Your task to perform on an android device: turn pop-ups on in chrome Image 0: 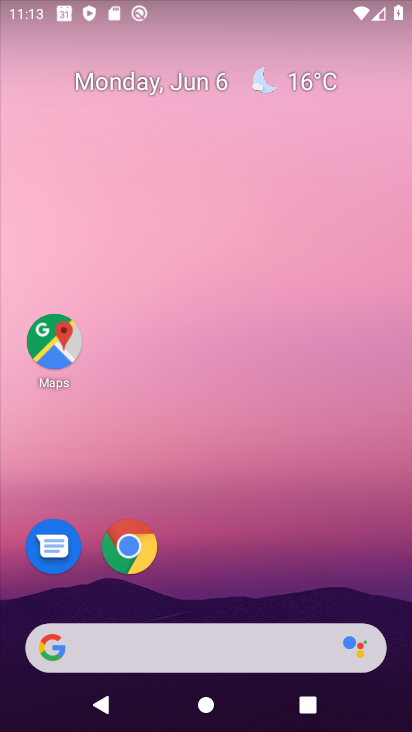
Step 0: click (130, 545)
Your task to perform on an android device: turn pop-ups on in chrome Image 1: 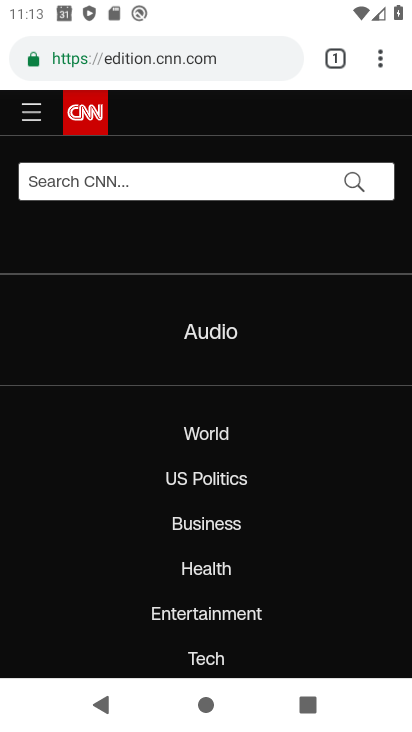
Step 1: click (387, 57)
Your task to perform on an android device: turn pop-ups on in chrome Image 2: 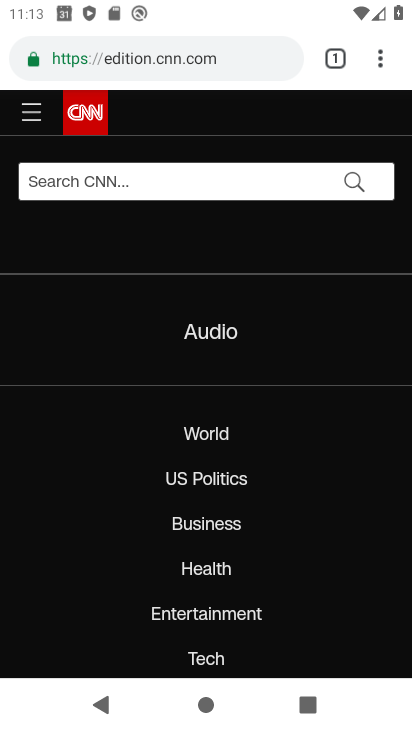
Step 2: click (379, 52)
Your task to perform on an android device: turn pop-ups on in chrome Image 3: 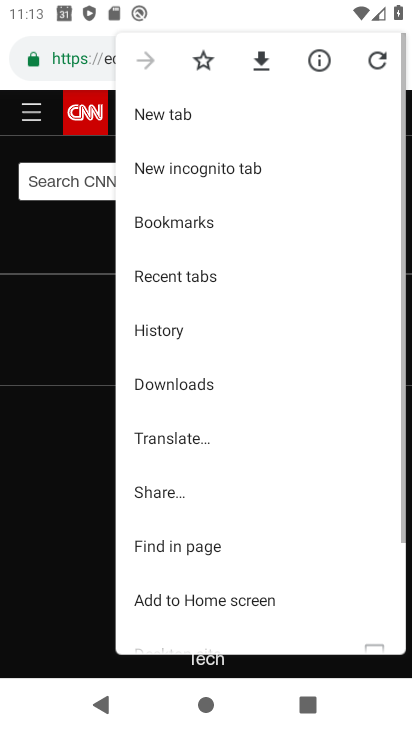
Step 3: drag from (175, 569) to (265, 114)
Your task to perform on an android device: turn pop-ups on in chrome Image 4: 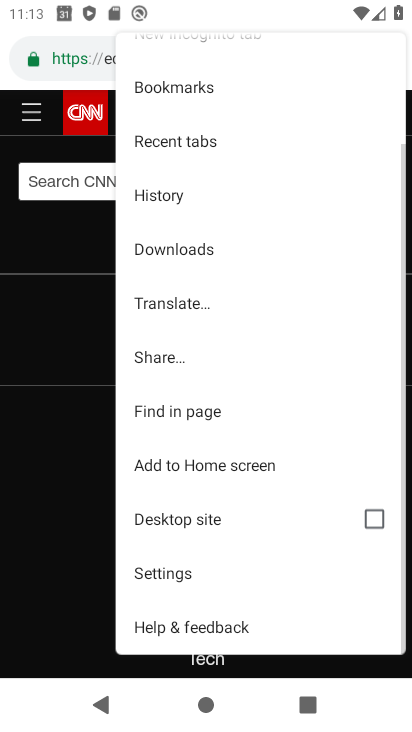
Step 4: click (178, 576)
Your task to perform on an android device: turn pop-ups on in chrome Image 5: 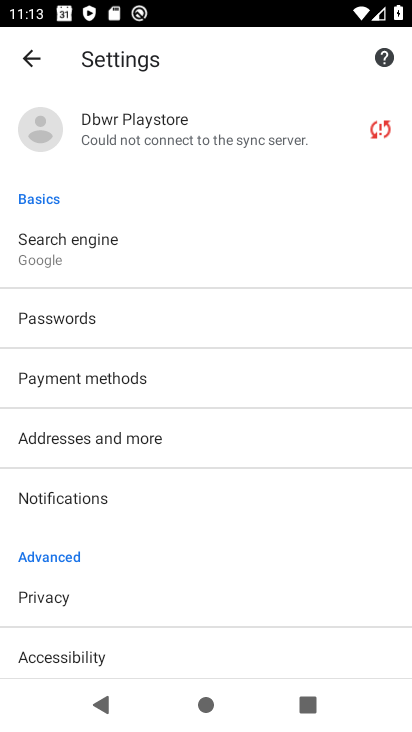
Step 5: drag from (207, 518) to (269, 54)
Your task to perform on an android device: turn pop-ups on in chrome Image 6: 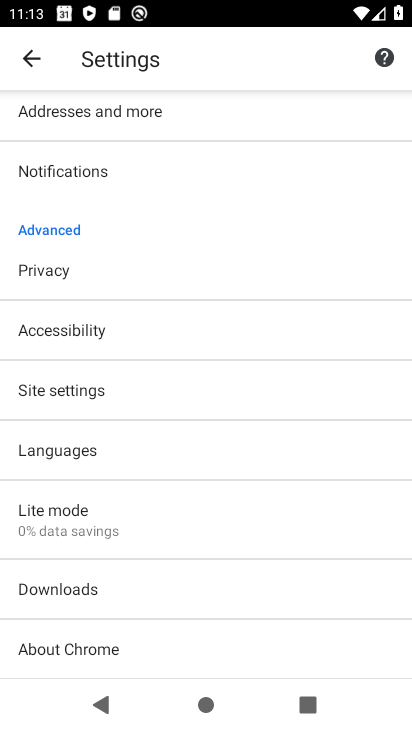
Step 6: click (79, 395)
Your task to perform on an android device: turn pop-ups on in chrome Image 7: 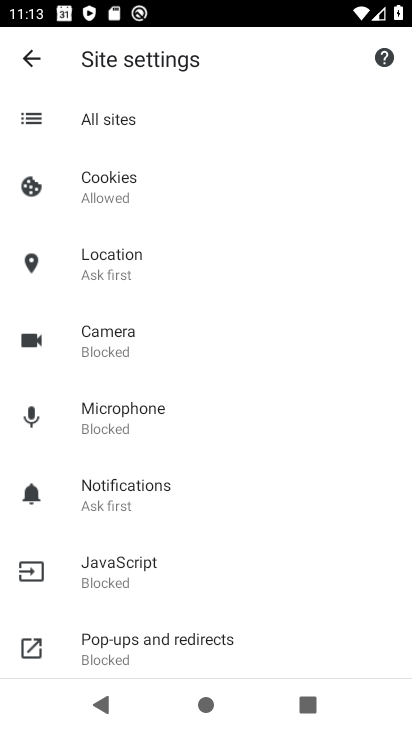
Step 7: click (141, 639)
Your task to perform on an android device: turn pop-ups on in chrome Image 8: 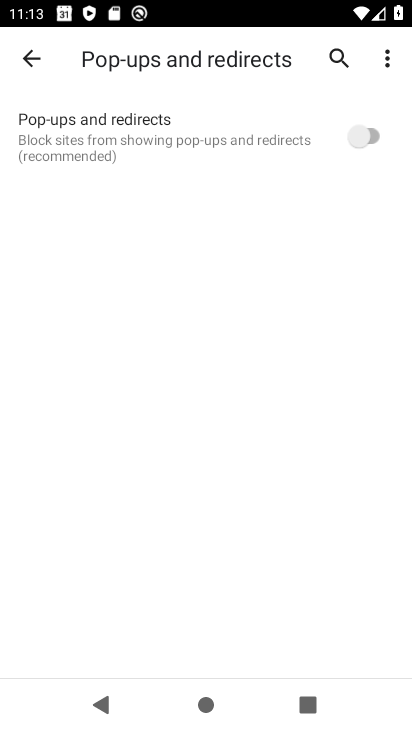
Step 8: click (369, 131)
Your task to perform on an android device: turn pop-ups on in chrome Image 9: 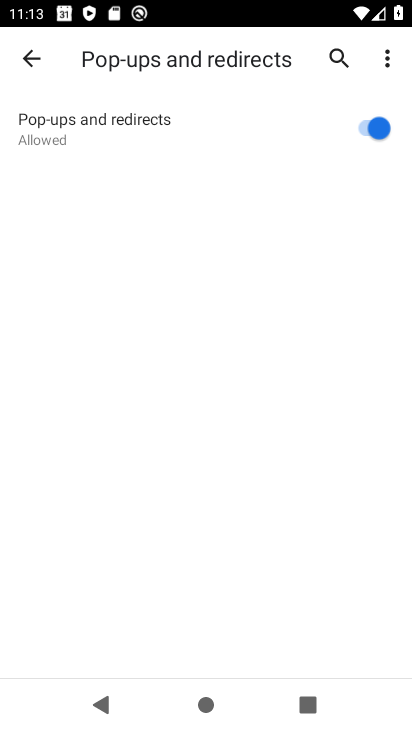
Step 9: task complete